Your task to perform on an android device: set default search engine in the chrome app Image 0: 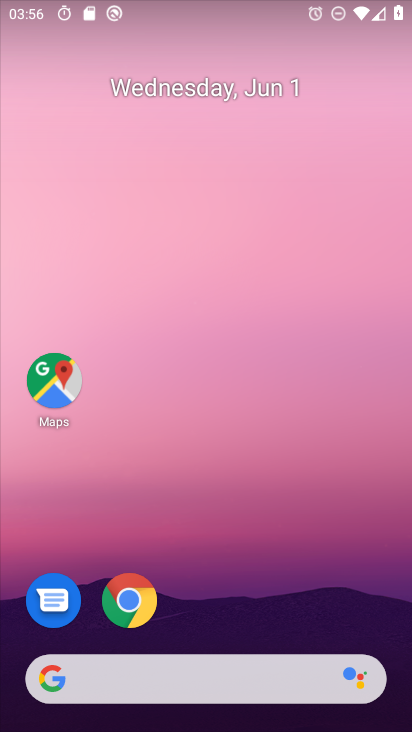
Step 0: drag from (230, 586) to (230, 0)
Your task to perform on an android device: set default search engine in the chrome app Image 1: 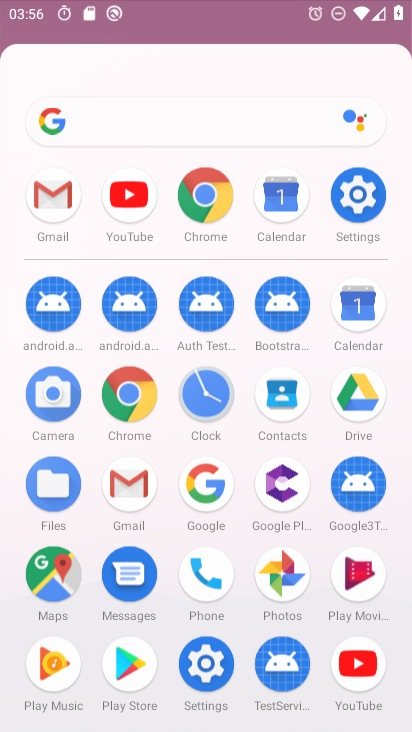
Step 1: click (205, 201)
Your task to perform on an android device: set default search engine in the chrome app Image 2: 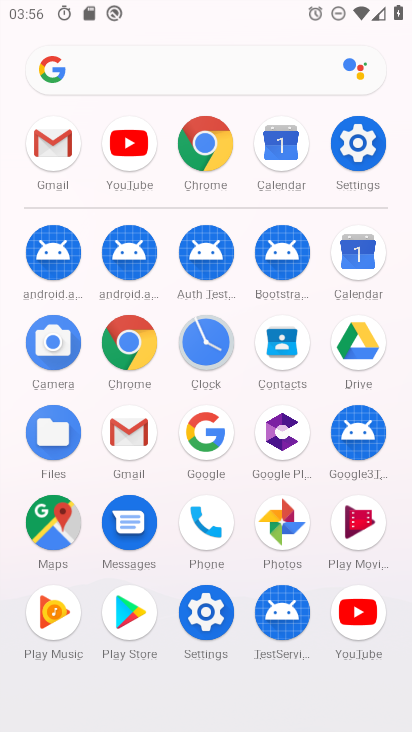
Step 2: click (205, 164)
Your task to perform on an android device: set default search engine in the chrome app Image 3: 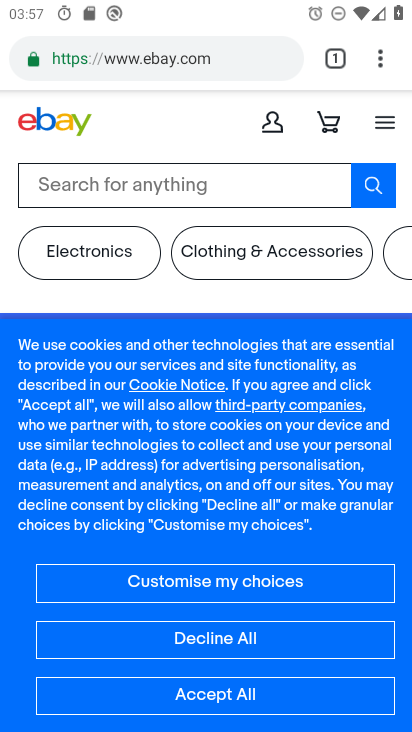
Step 3: click (377, 63)
Your task to perform on an android device: set default search engine in the chrome app Image 4: 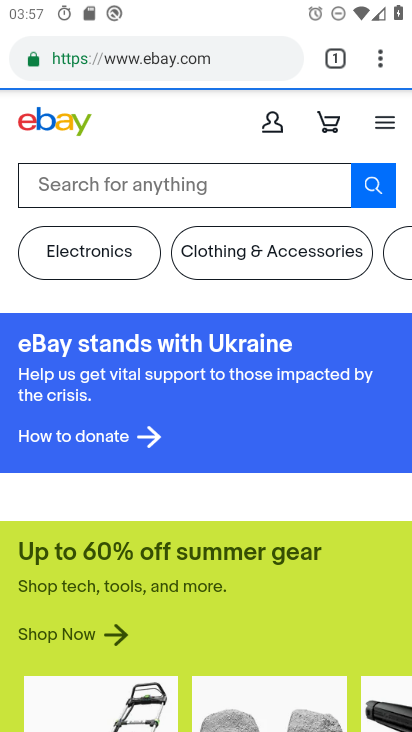
Step 4: click (377, 63)
Your task to perform on an android device: set default search engine in the chrome app Image 5: 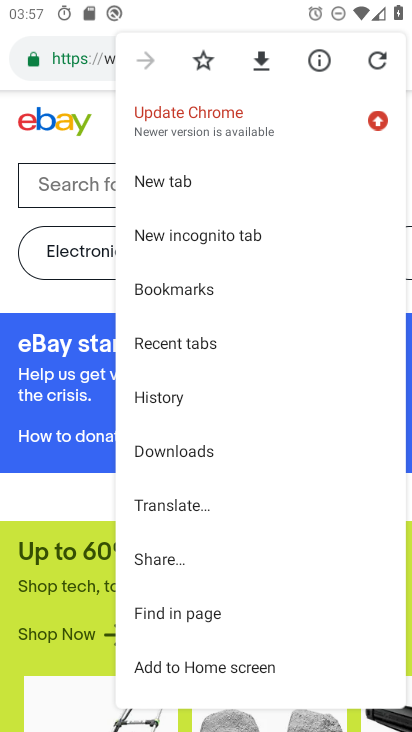
Step 5: drag from (210, 586) to (206, 295)
Your task to perform on an android device: set default search engine in the chrome app Image 6: 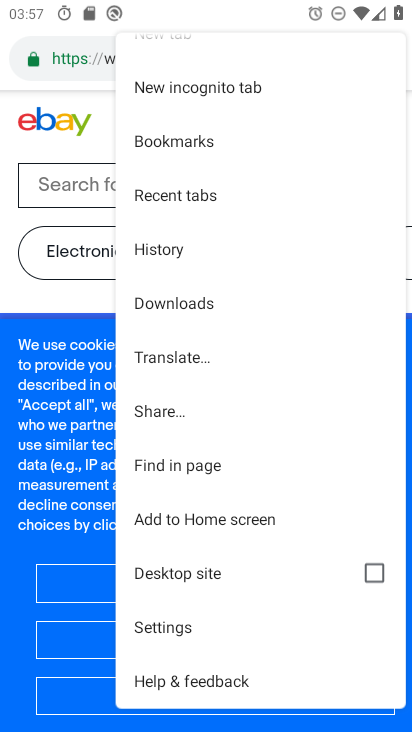
Step 6: click (165, 632)
Your task to perform on an android device: set default search engine in the chrome app Image 7: 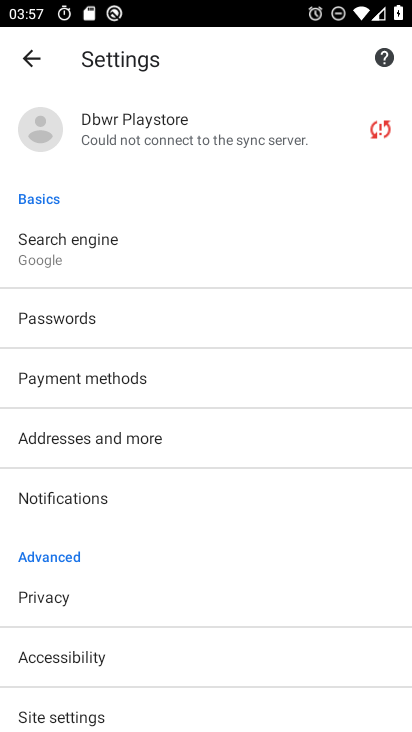
Step 7: click (65, 259)
Your task to perform on an android device: set default search engine in the chrome app Image 8: 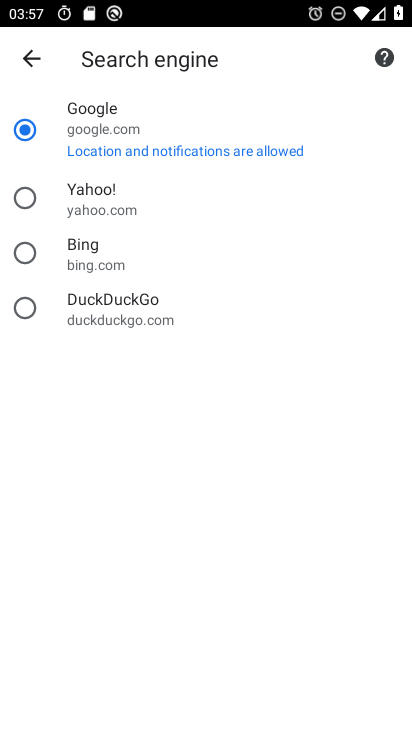
Step 8: click (18, 251)
Your task to perform on an android device: set default search engine in the chrome app Image 9: 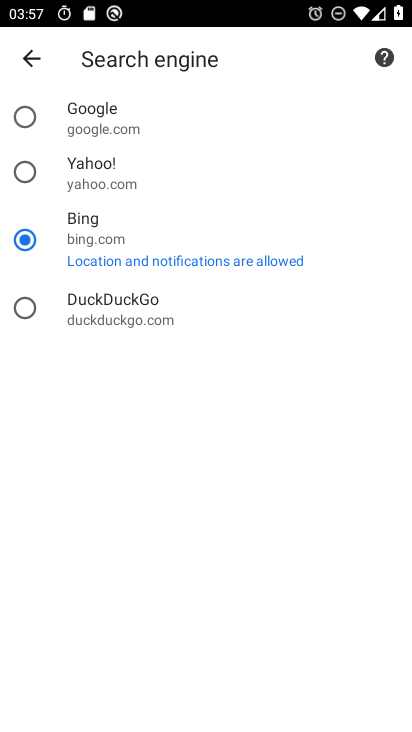
Step 9: task complete